Your task to perform on an android device: What is the news today? Image 0: 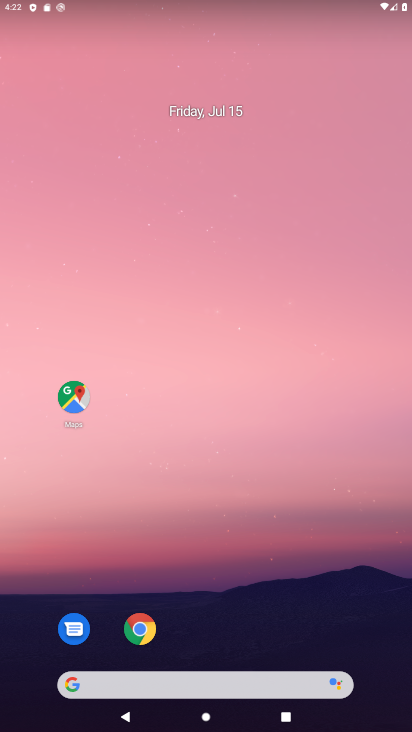
Step 0: drag from (2, 300) to (368, 314)
Your task to perform on an android device: What is the news today? Image 1: 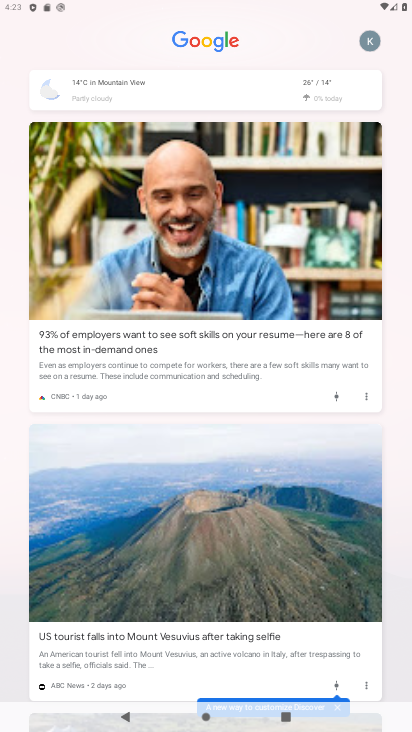
Step 1: task complete